Your task to perform on an android device: turn on javascript in the chrome app Image 0: 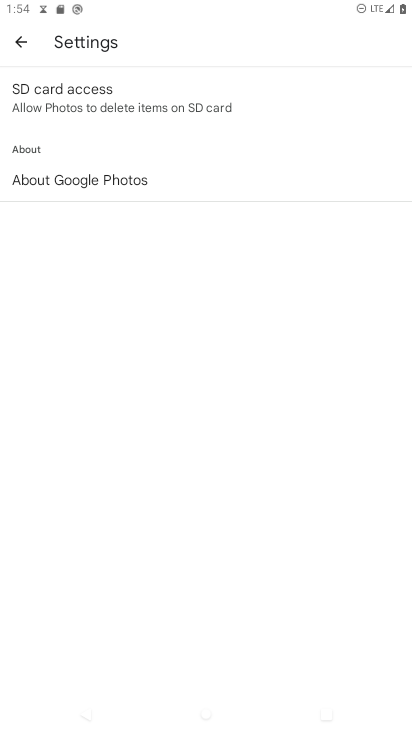
Step 0: press home button
Your task to perform on an android device: turn on javascript in the chrome app Image 1: 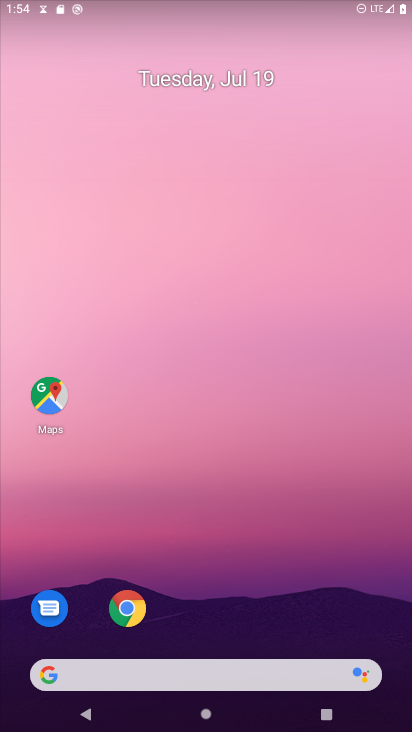
Step 1: drag from (356, 546) to (403, 11)
Your task to perform on an android device: turn on javascript in the chrome app Image 2: 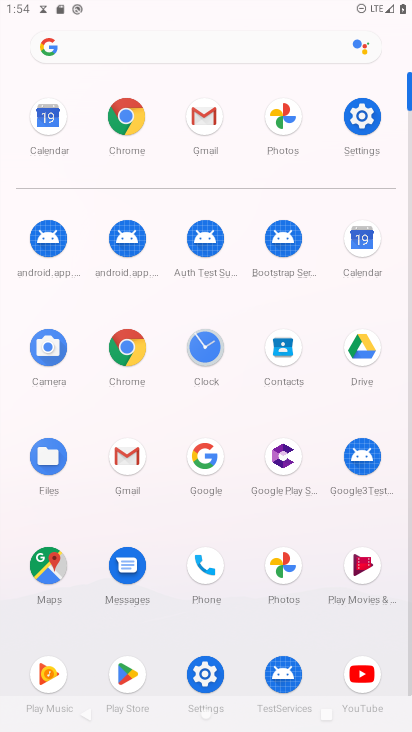
Step 2: click (129, 355)
Your task to perform on an android device: turn on javascript in the chrome app Image 3: 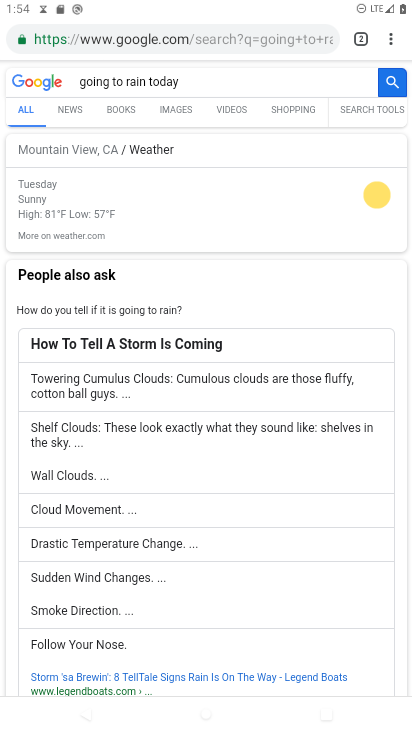
Step 3: drag from (393, 32) to (316, 443)
Your task to perform on an android device: turn on javascript in the chrome app Image 4: 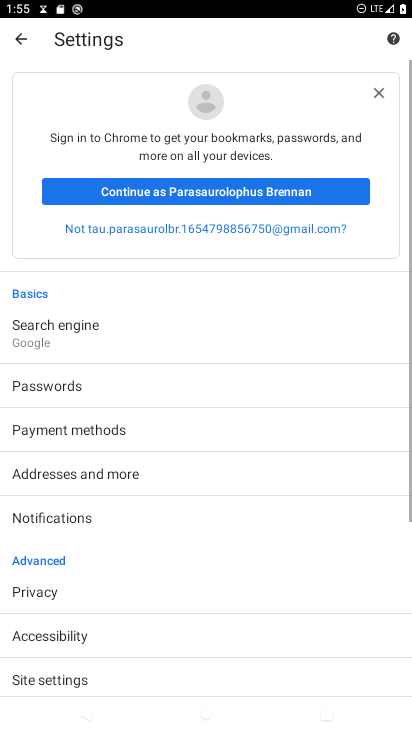
Step 4: drag from (215, 527) to (282, 130)
Your task to perform on an android device: turn on javascript in the chrome app Image 5: 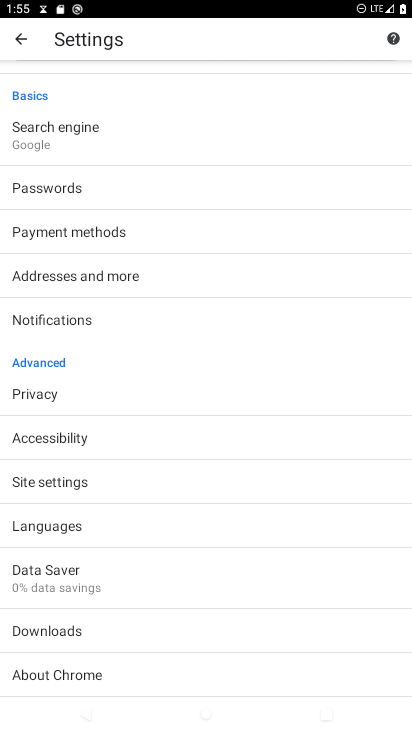
Step 5: click (96, 488)
Your task to perform on an android device: turn on javascript in the chrome app Image 6: 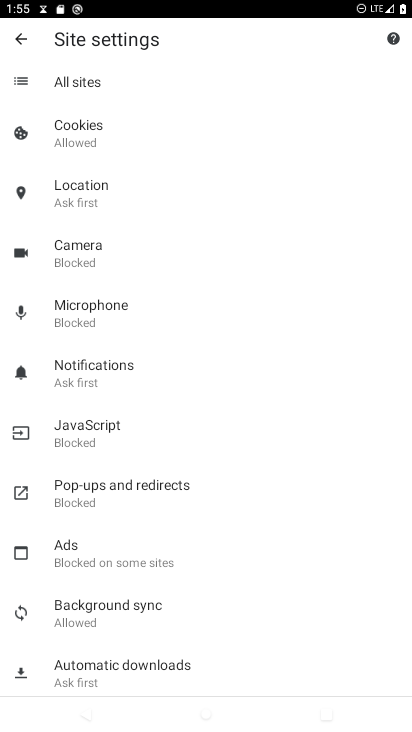
Step 6: click (101, 439)
Your task to perform on an android device: turn on javascript in the chrome app Image 7: 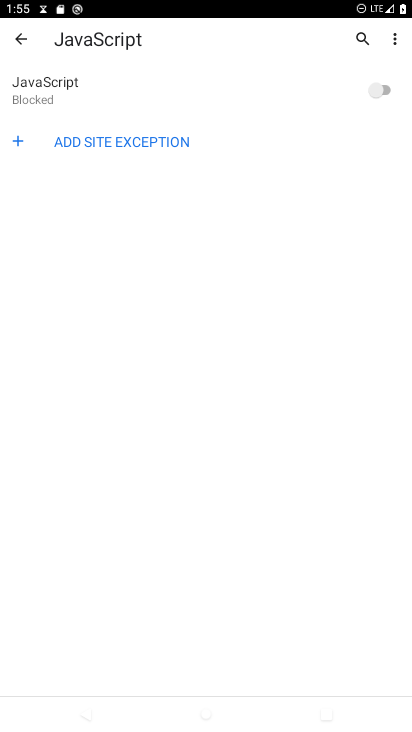
Step 7: click (391, 86)
Your task to perform on an android device: turn on javascript in the chrome app Image 8: 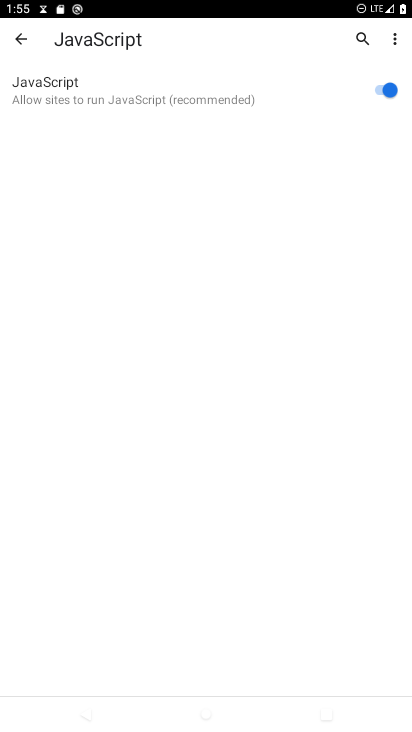
Step 8: task complete